Your task to perform on an android device: Open accessibility settings Image 0: 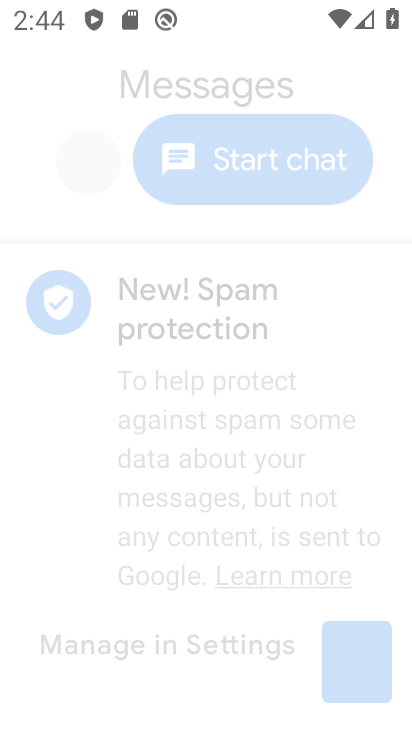
Step 0: click (258, 548)
Your task to perform on an android device: Open accessibility settings Image 1: 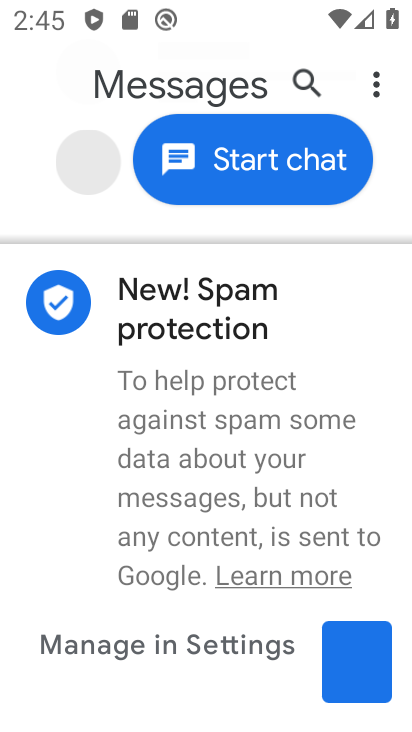
Step 1: press home button
Your task to perform on an android device: Open accessibility settings Image 2: 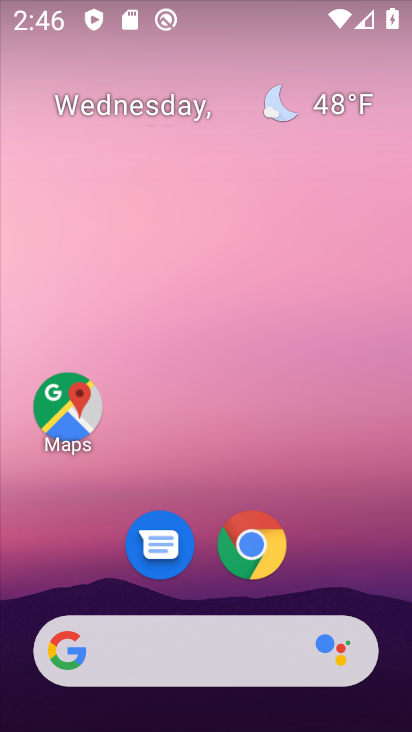
Step 2: drag from (341, 564) to (348, 428)
Your task to perform on an android device: Open accessibility settings Image 3: 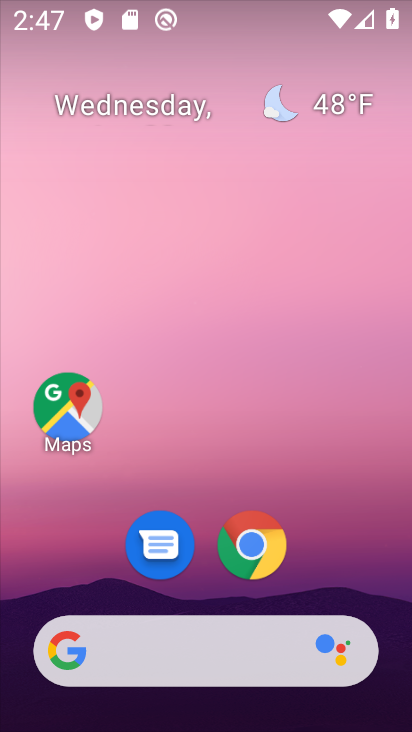
Step 3: drag from (290, 397) to (334, 150)
Your task to perform on an android device: Open accessibility settings Image 4: 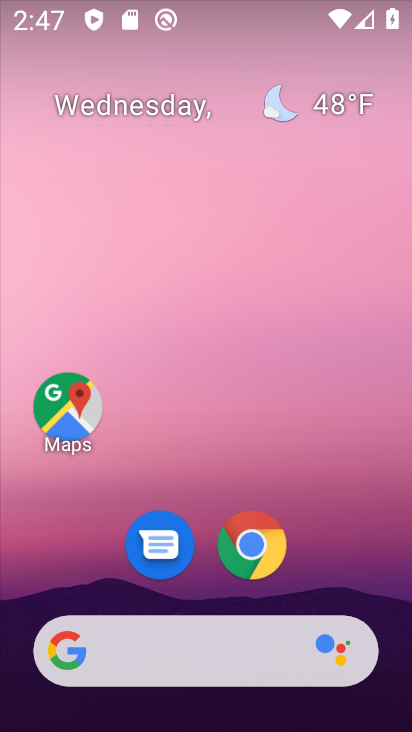
Step 4: drag from (345, 406) to (354, 125)
Your task to perform on an android device: Open accessibility settings Image 5: 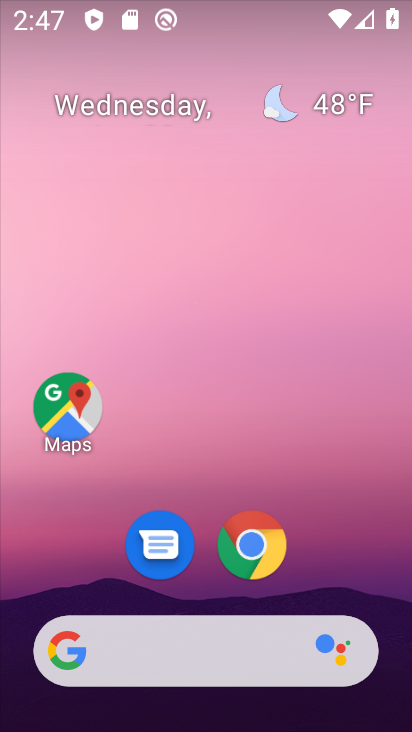
Step 5: drag from (258, 473) to (279, 69)
Your task to perform on an android device: Open accessibility settings Image 6: 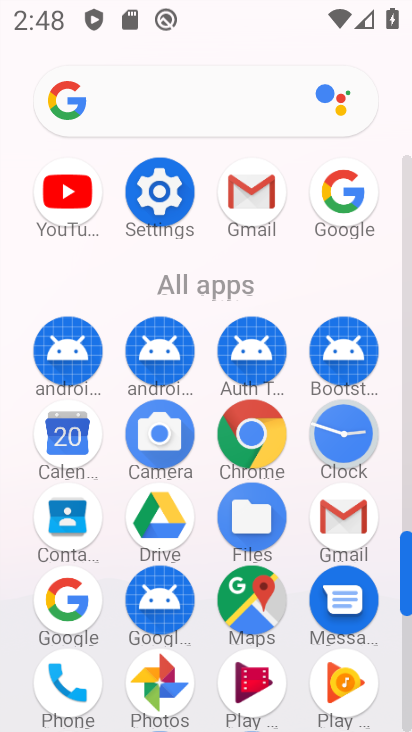
Step 6: click (156, 200)
Your task to perform on an android device: Open accessibility settings Image 7: 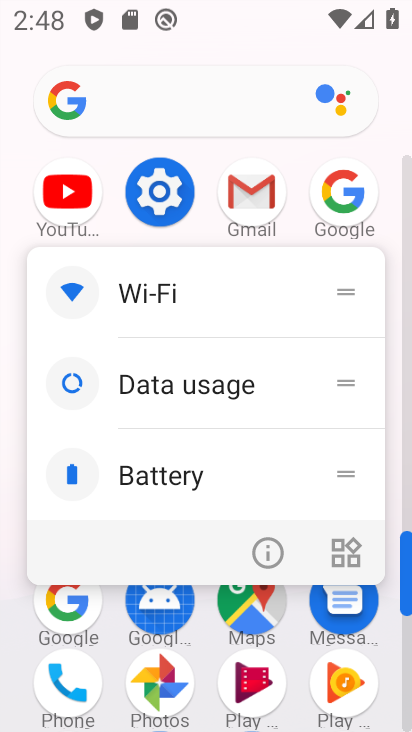
Step 7: click (152, 181)
Your task to perform on an android device: Open accessibility settings Image 8: 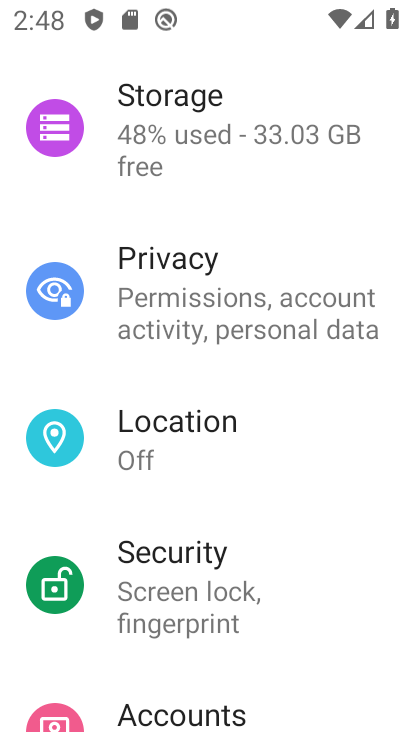
Step 8: drag from (241, 538) to (244, 99)
Your task to perform on an android device: Open accessibility settings Image 9: 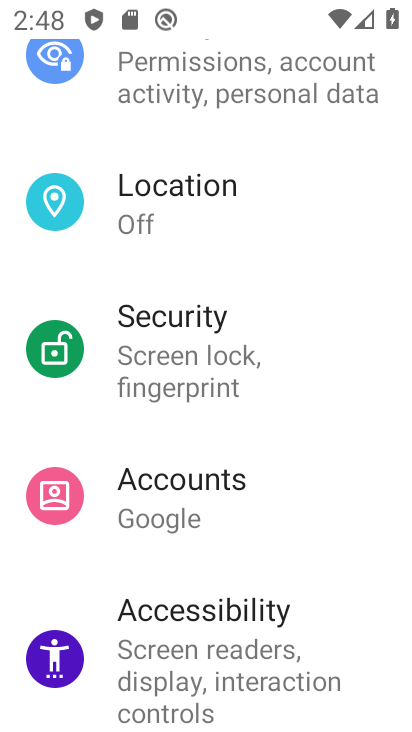
Step 9: click (206, 640)
Your task to perform on an android device: Open accessibility settings Image 10: 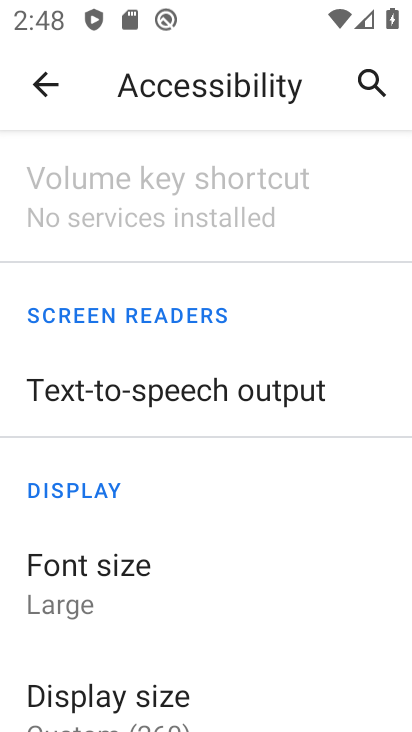
Step 10: task complete